Your task to perform on an android device: open chrome privacy settings Image 0: 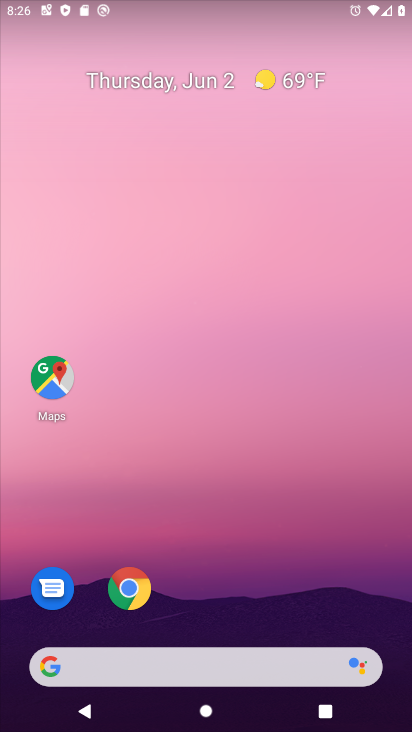
Step 0: click (126, 585)
Your task to perform on an android device: open chrome privacy settings Image 1: 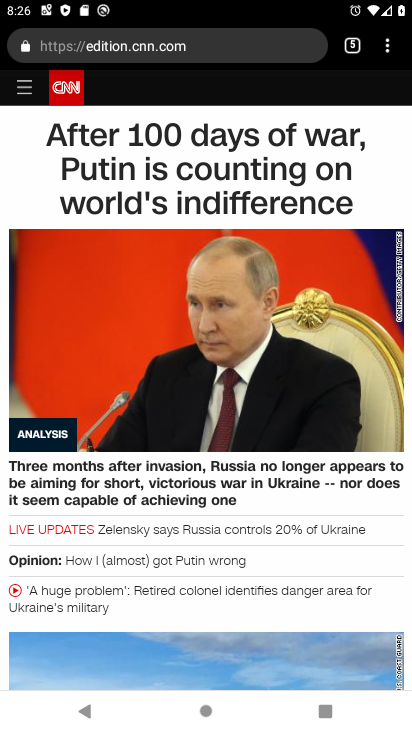
Step 1: click (390, 54)
Your task to perform on an android device: open chrome privacy settings Image 2: 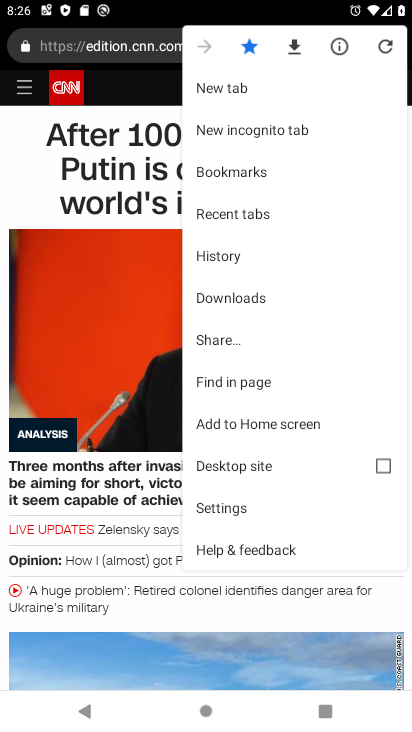
Step 2: click (224, 506)
Your task to perform on an android device: open chrome privacy settings Image 3: 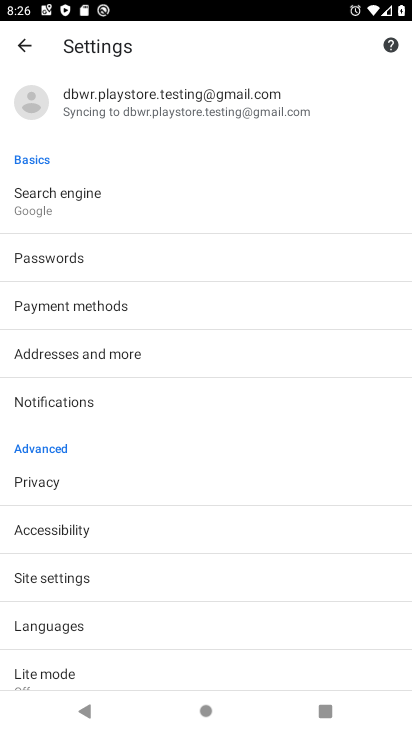
Step 3: click (41, 481)
Your task to perform on an android device: open chrome privacy settings Image 4: 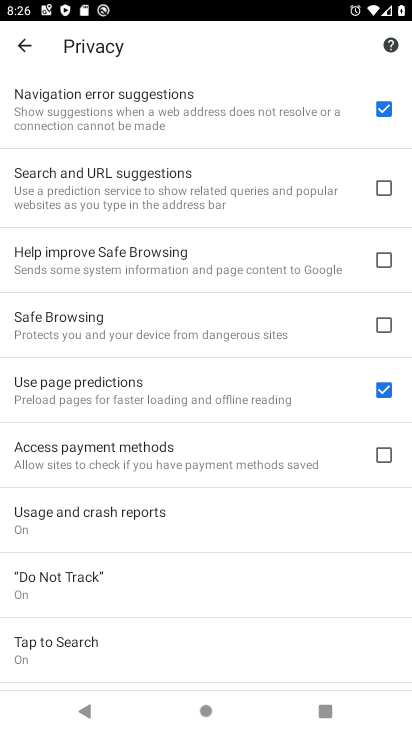
Step 4: task complete